Your task to perform on an android device: Open the map Image 0: 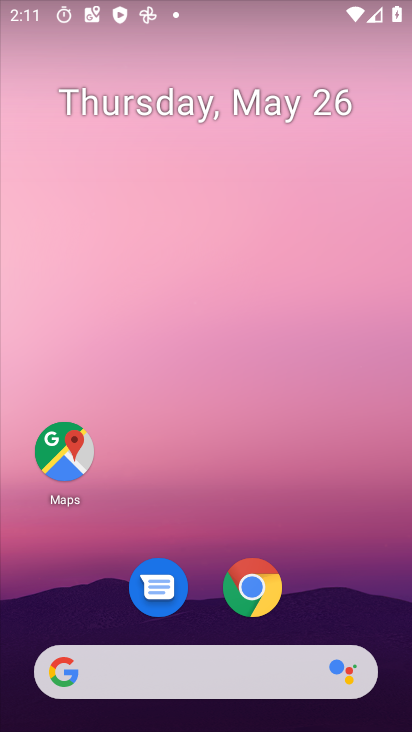
Step 0: drag from (362, 620) to (374, 174)
Your task to perform on an android device: Open the map Image 1: 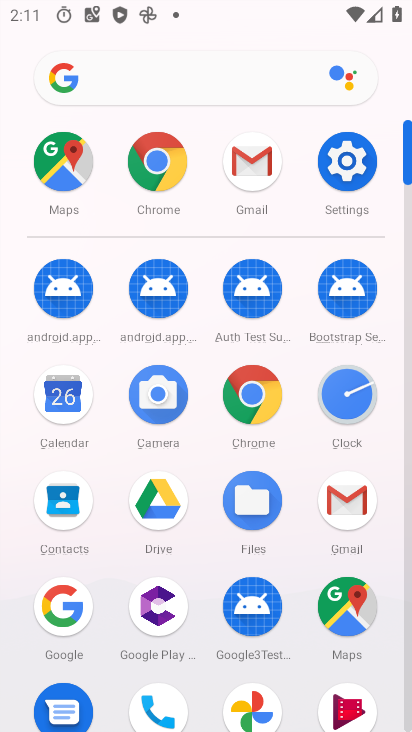
Step 1: drag from (296, 591) to (303, 371)
Your task to perform on an android device: Open the map Image 2: 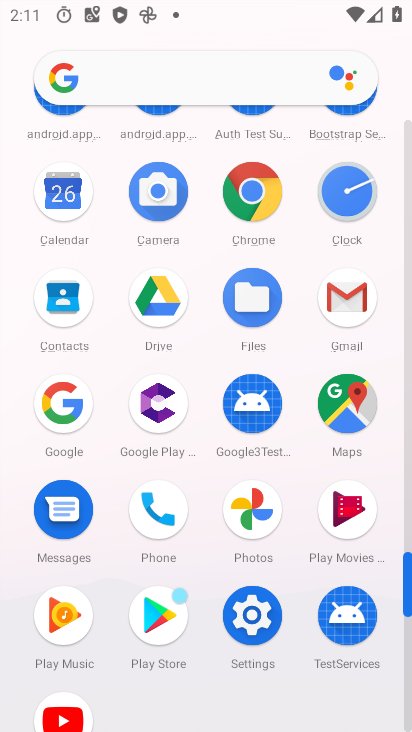
Step 2: click (365, 421)
Your task to perform on an android device: Open the map Image 3: 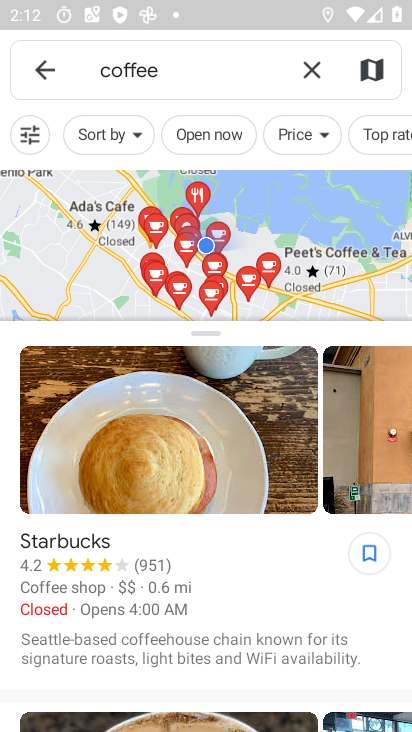
Step 3: task complete